Your task to perform on an android device: What is the recent news? Image 0: 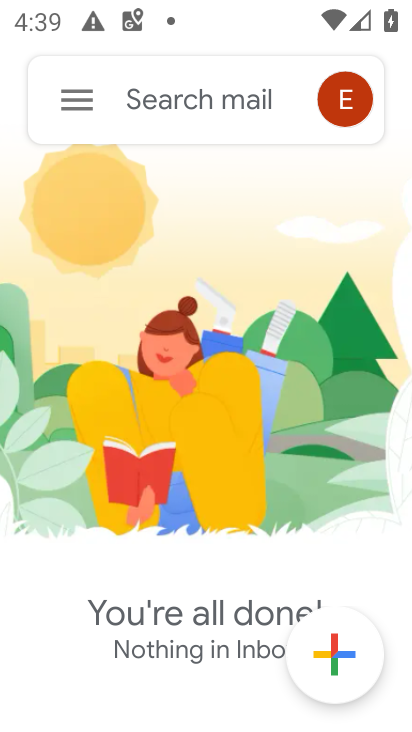
Step 0: press home button
Your task to perform on an android device: What is the recent news? Image 1: 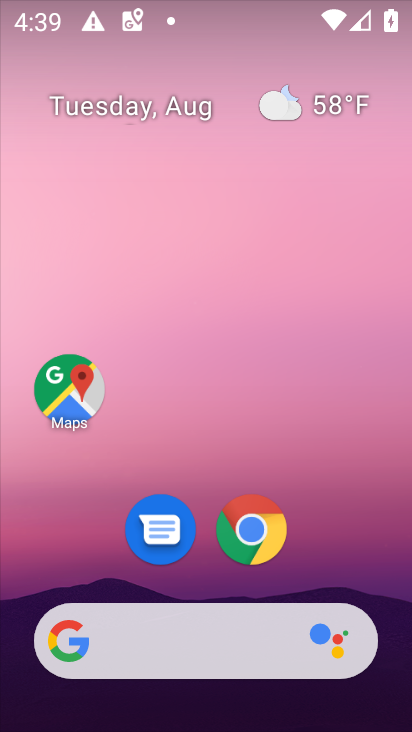
Step 1: drag from (209, 476) to (264, 45)
Your task to perform on an android device: What is the recent news? Image 2: 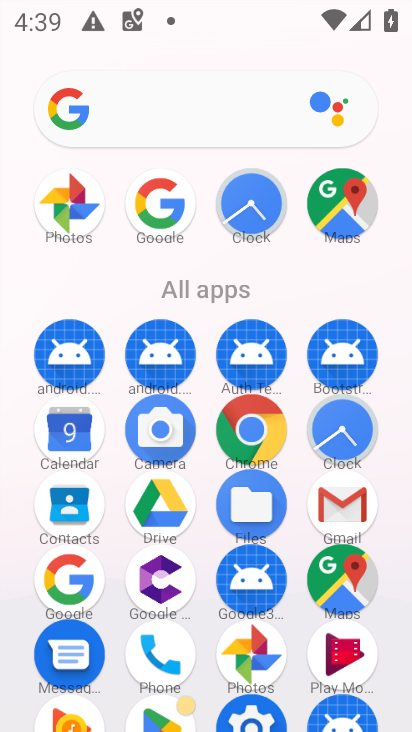
Step 2: click (154, 210)
Your task to perform on an android device: What is the recent news? Image 3: 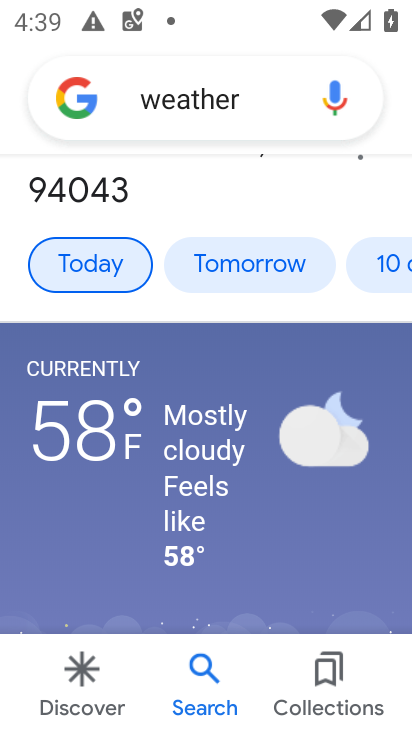
Step 3: click (236, 97)
Your task to perform on an android device: What is the recent news? Image 4: 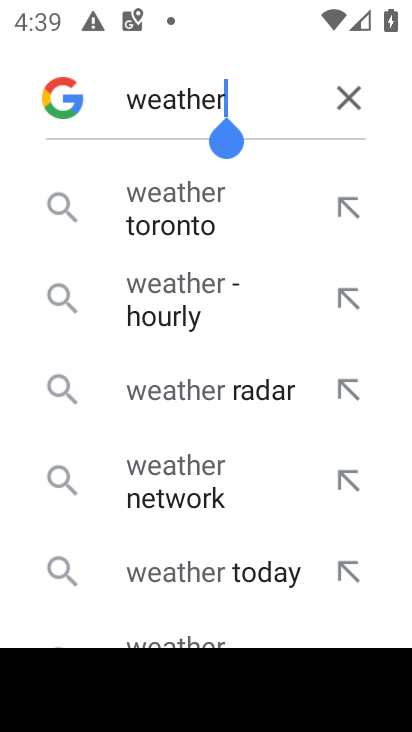
Step 4: click (341, 90)
Your task to perform on an android device: What is the recent news? Image 5: 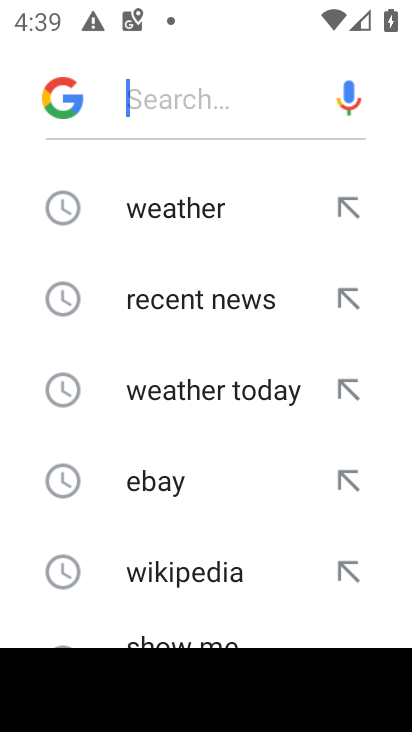
Step 5: click (148, 303)
Your task to perform on an android device: What is the recent news? Image 6: 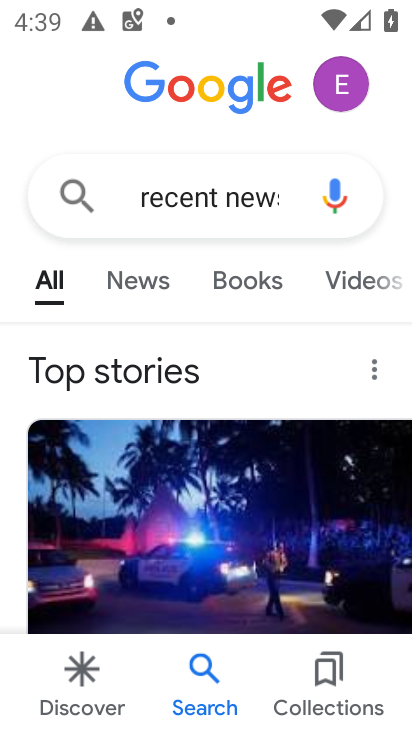
Step 6: click (139, 288)
Your task to perform on an android device: What is the recent news? Image 7: 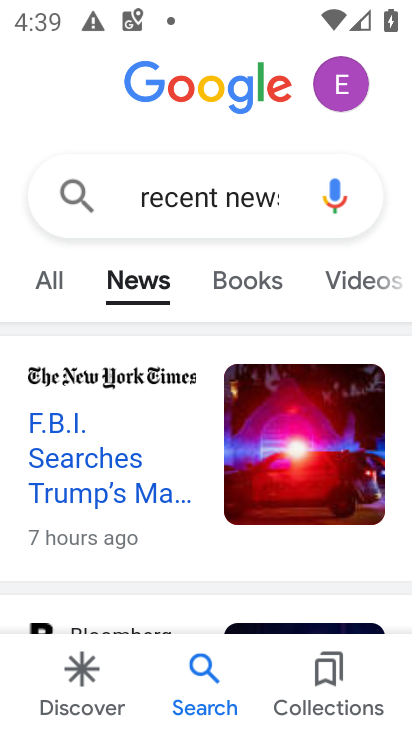
Step 7: task complete